Your task to perform on an android device: turn pop-ups on in chrome Image 0: 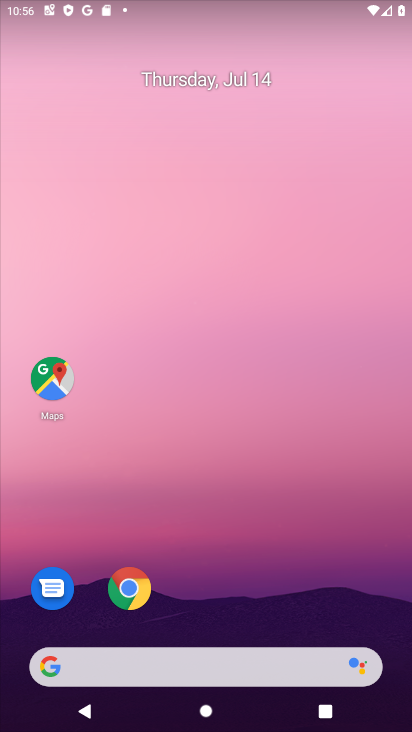
Step 0: click (138, 597)
Your task to perform on an android device: turn pop-ups on in chrome Image 1: 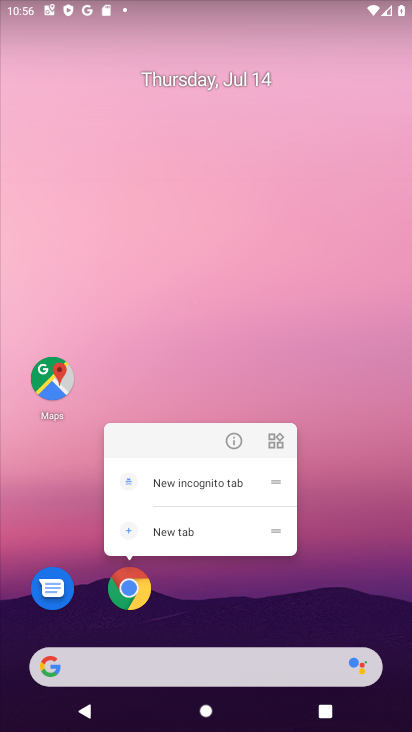
Step 1: click (130, 589)
Your task to perform on an android device: turn pop-ups on in chrome Image 2: 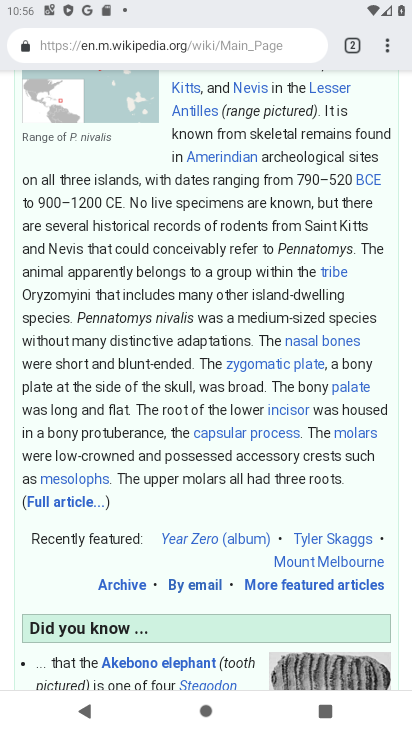
Step 2: drag from (388, 50) to (272, 554)
Your task to perform on an android device: turn pop-ups on in chrome Image 3: 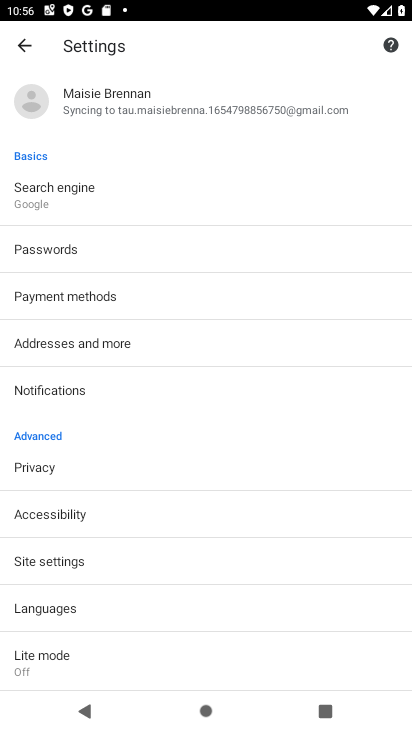
Step 3: click (58, 563)
Your task to perform on an android device: turn pop-ups on in chrome Image 4: 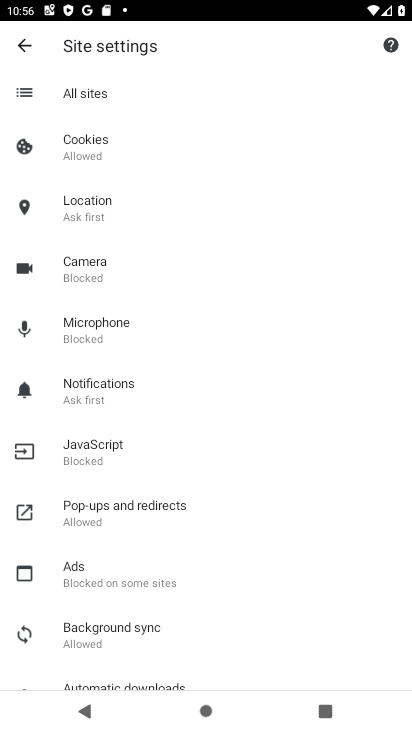
Step 4: click (77, 520)
Your task to perform on an android device: turn pop-ups on in chrome Image 5: 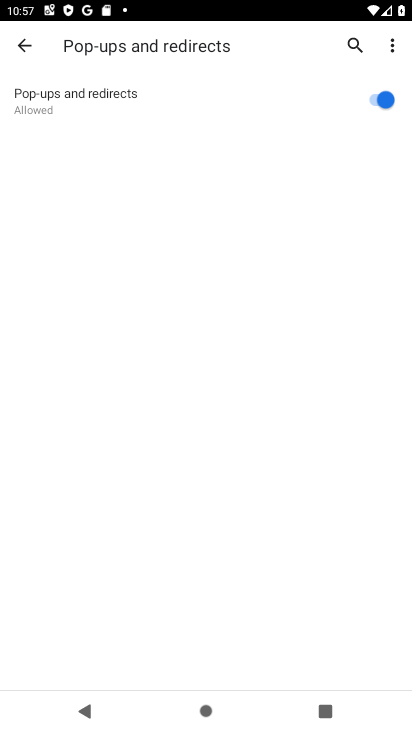
Step 5: task complete